Your task to perform on an android device: Go to Yahoo.com Image 0: 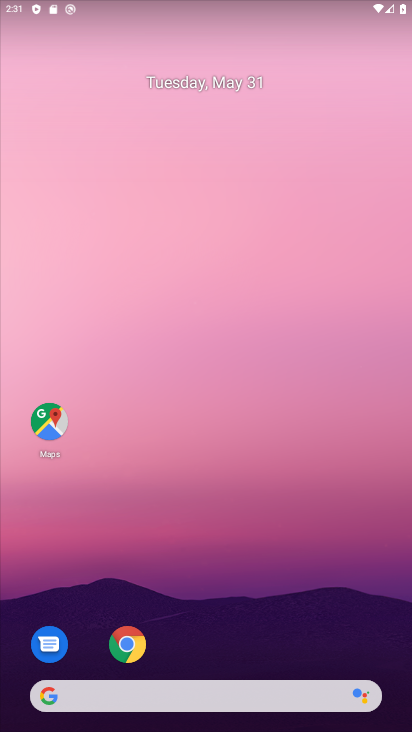
Step 0: click (204, 693)
Your task to perform on an android device: Go to Yahoo.com Image 1: 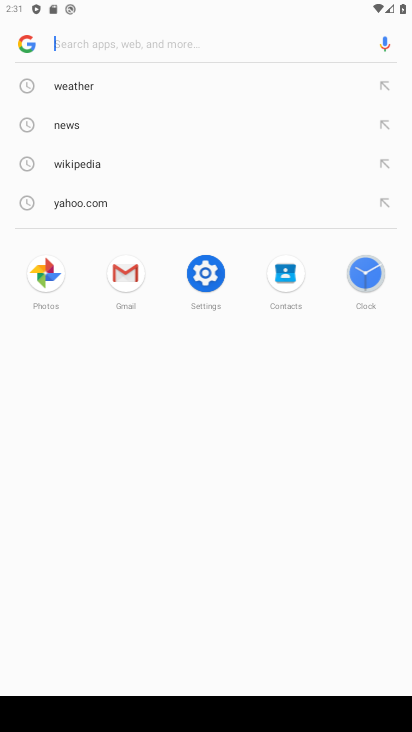
Step 1: type "Yahoo.com"
Your task to perform on an android device: Go to Yahoo.com Image 2: 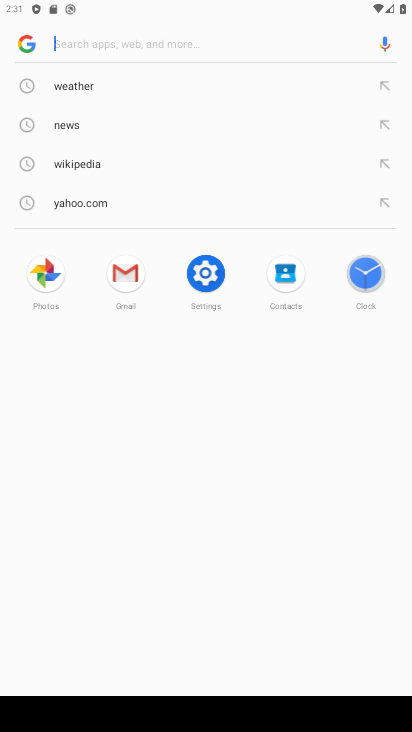
Step 2: click (206, 42)
Your task to perform on an android device: Go to Yahoo.com Image 3: 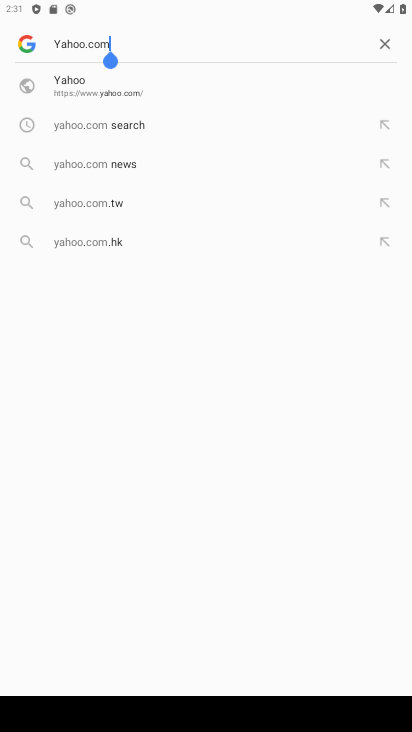
Step 3: click (71, 89)
Your task to perform on an android device: Go to Yahoo.com Image 4: 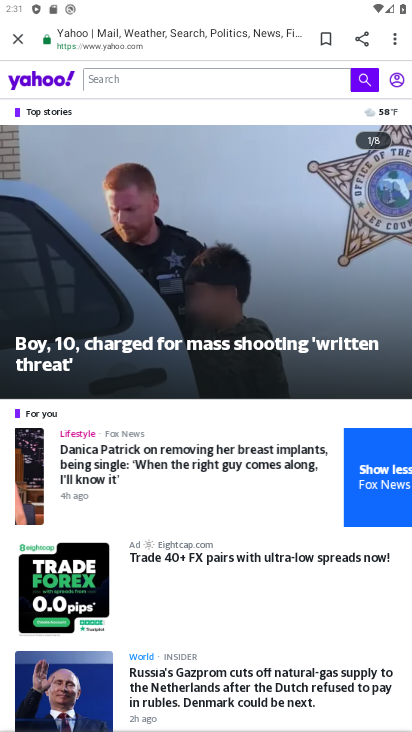
Step 4: task complete